Your task to perform on an android device: star an email in the gmail app Image 0: 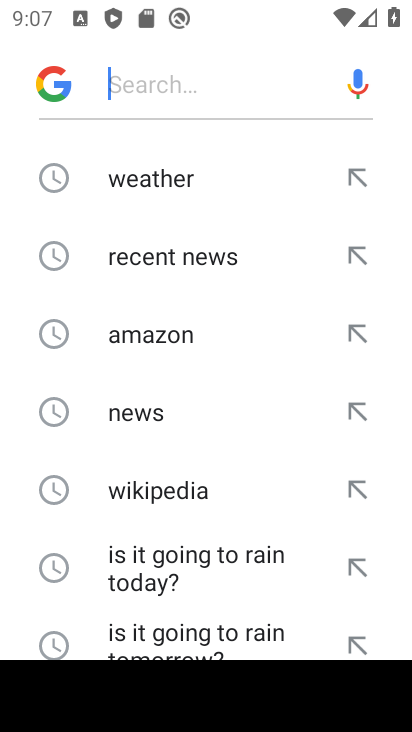
Step 0: press home button
Your task to perform on an android device: star an email in the gmail app Image 1: 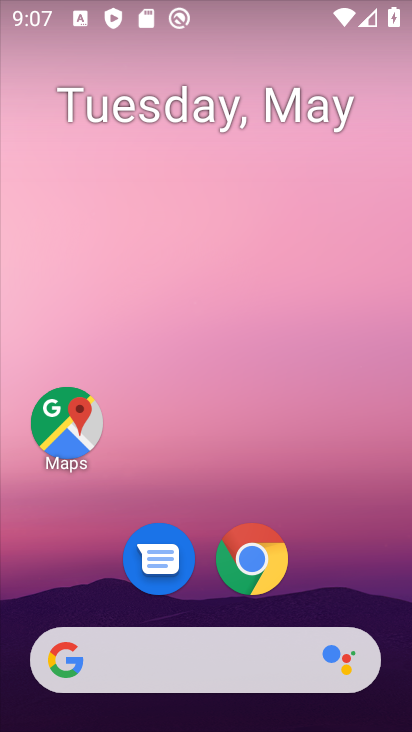
Step 1: drag from (228, 648) to (173, 23)
Your task to perform on an android device: star an email in the gmail app Image 2: 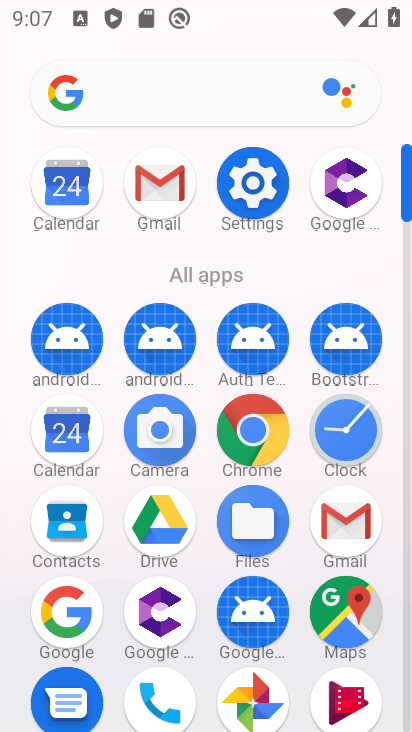
Step 2: click (188, 185)
Your task to perform on an android device: star an email in the gmail app Image 3: 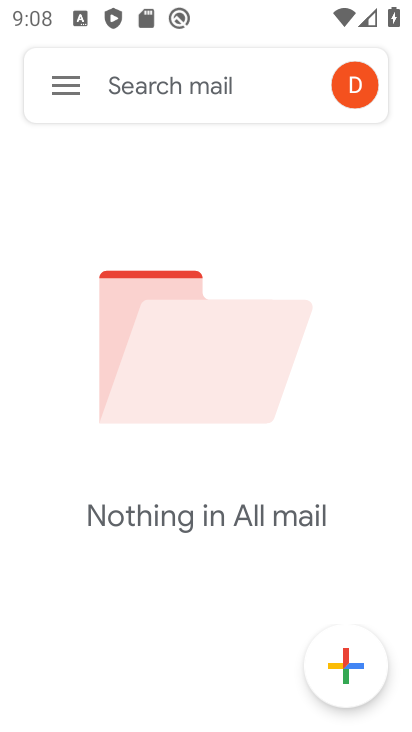
Step 3: click (56, 94)
Your task to perform on an android device: star an email in the gmail app Image 4: 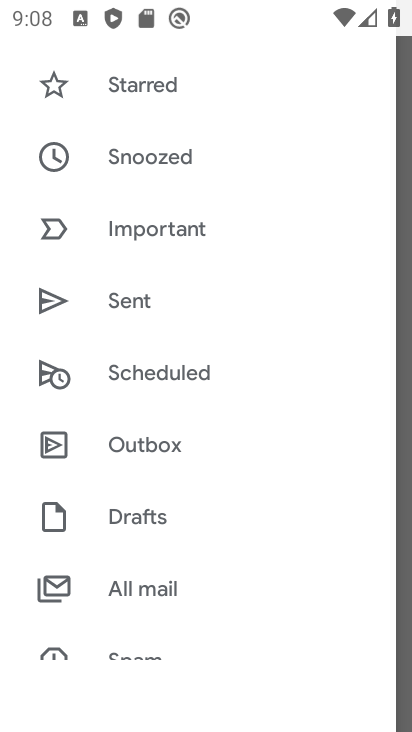
Step 4: click (131, 592)
Your task to perform on an android device: star an email in the gmail app Image 5: 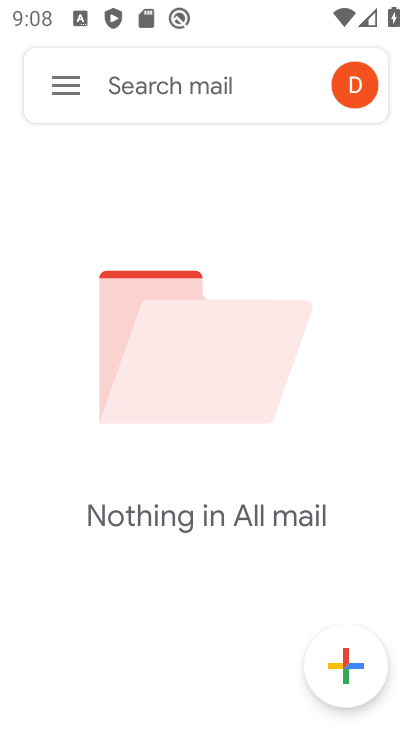
Step 5: task complete